Your task to perform on an android device: set an alarm Image 0: 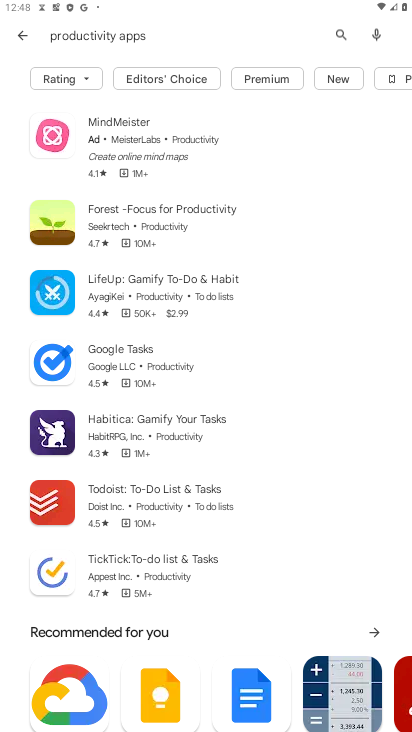
Step 0: press home button
Your task to perform on an android device: set an alarm Image 1: 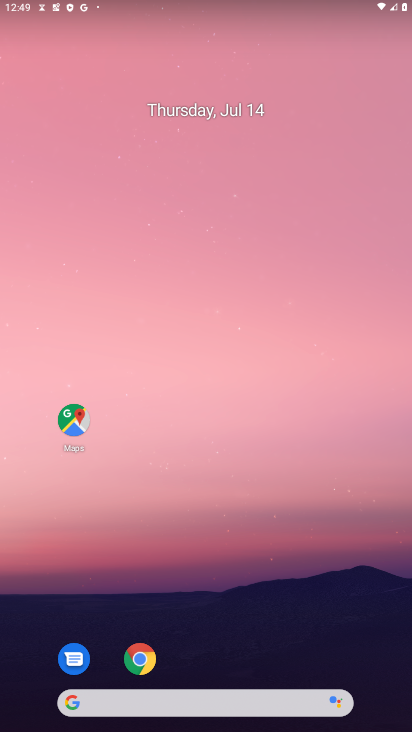
Step 1: drag from (90, 593) to (336, 11)
Your task to perform on an android device: set an alarm Image 2: 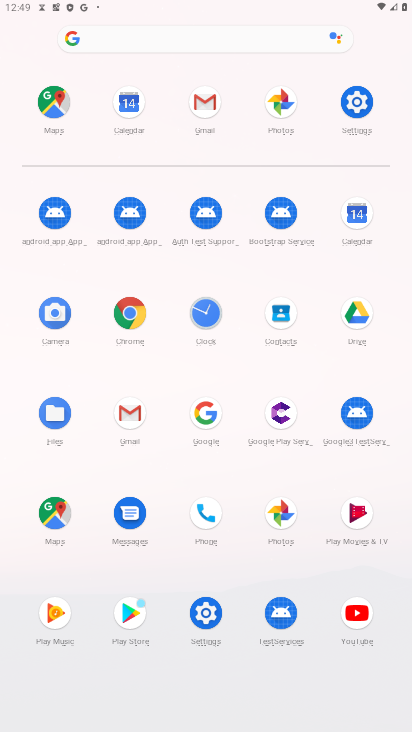
Step 2: click (199, 315)
Your task to perform on an android device: set an alarm Image 3: 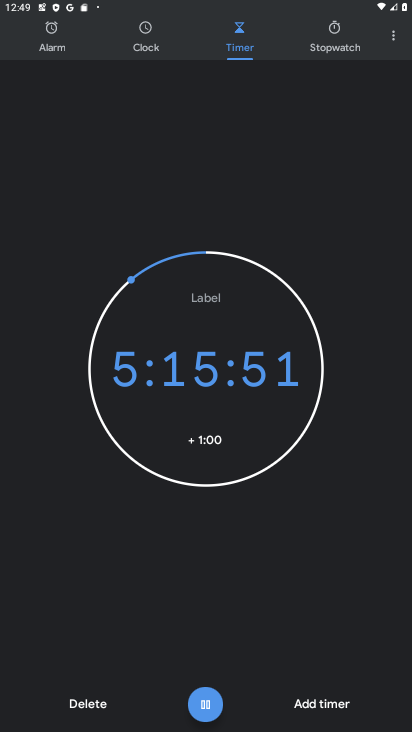
Step 3: click (41, 42)
Your task to perform on an android device: set an alarm Image 4: 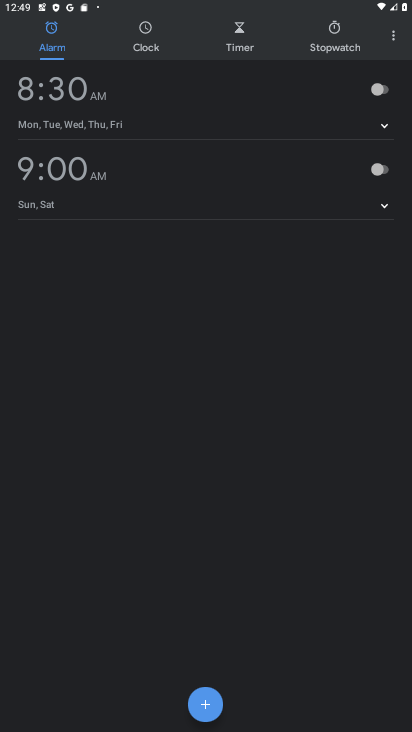
Step 4: task complete